Your task to perform on an android device: Open Maps and search for coffee Image 0: 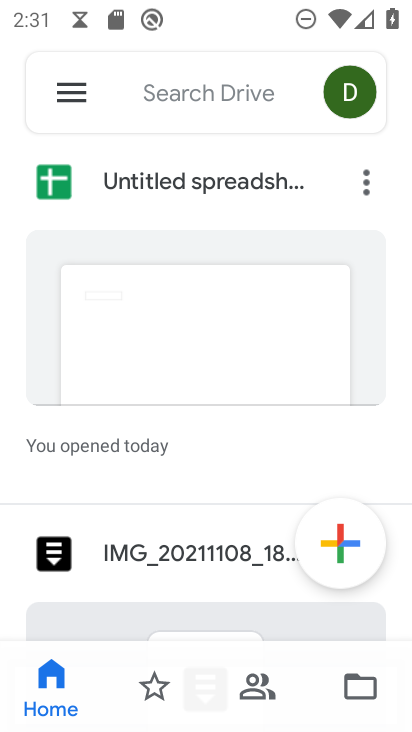
Step 0: press home button
Your task to perform on an android device: Open Maps and search for coffee Image 1: 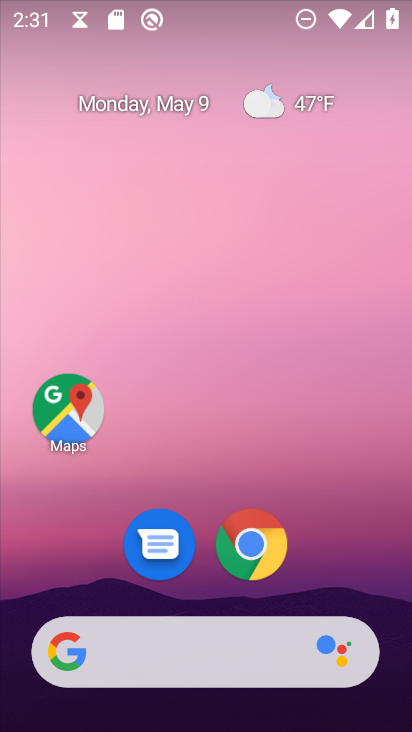
Step 1: drag from (366, 518) to (409, 258)
Your task to perform on an android device: Open Maps and search for coffee Image 2: 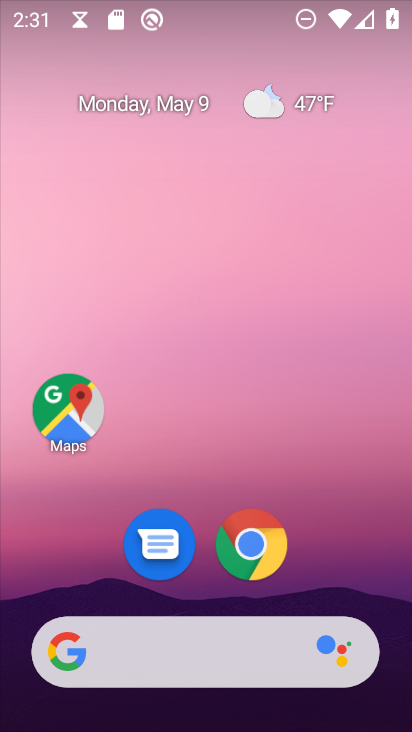
Step 2: click (268, 536)
Your task to perform on an android device: Open Maps and search for coffee Image 3: 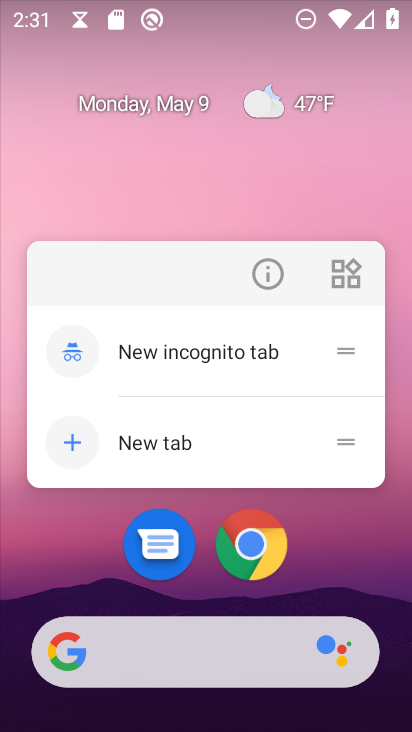
Step 3: click (348, 526)
Your task to perform on an android device: Open Maps and search for coffee Image 4: 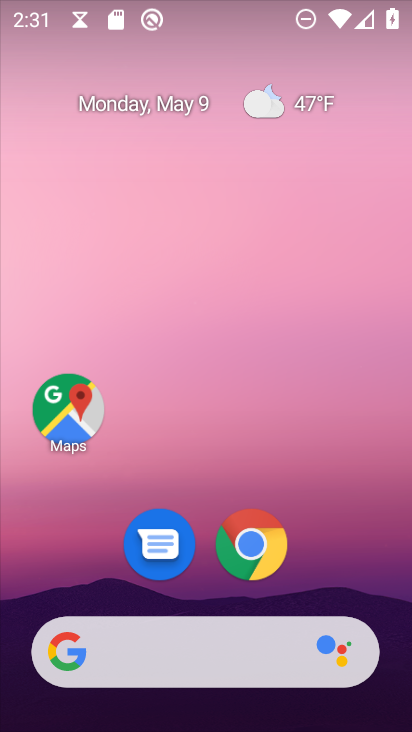
Step 4: drag from (374, 407) to (369, 104)
Your task to perform on an android device: Open Maps and search for coffee Image 5: 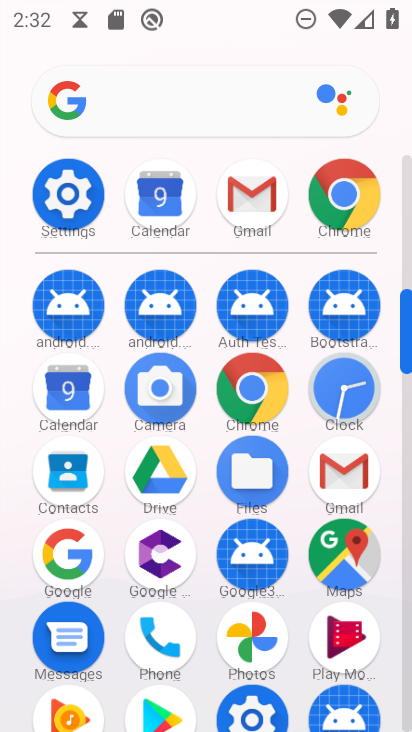
Step 5: click (347, 569)
Your task to perform on an android device: Open Maps and search for coffee Image 6: 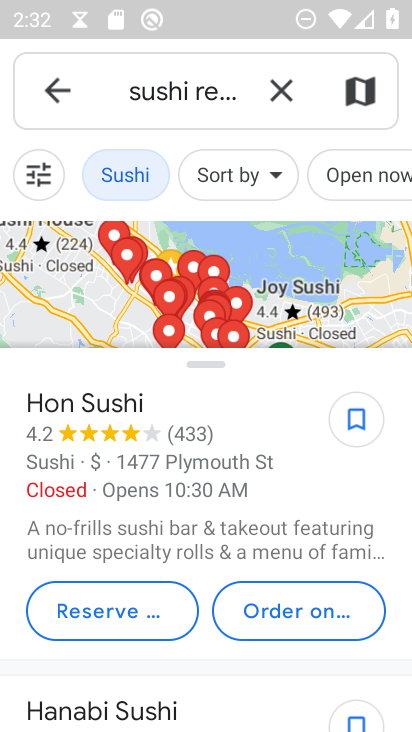
Step 6: click (268, 91)
Your task to perform on an android device: Open Maps and search for coffee Image 7: 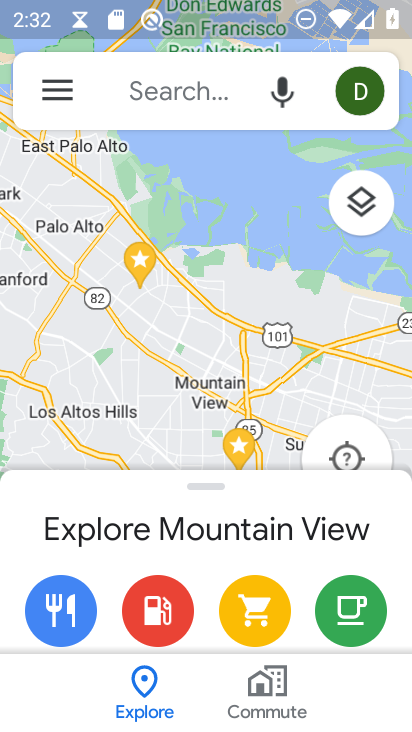
Step 7: click (219, 85)
Your task to perform on an android device: Open Maps and search for coffee Image 8: 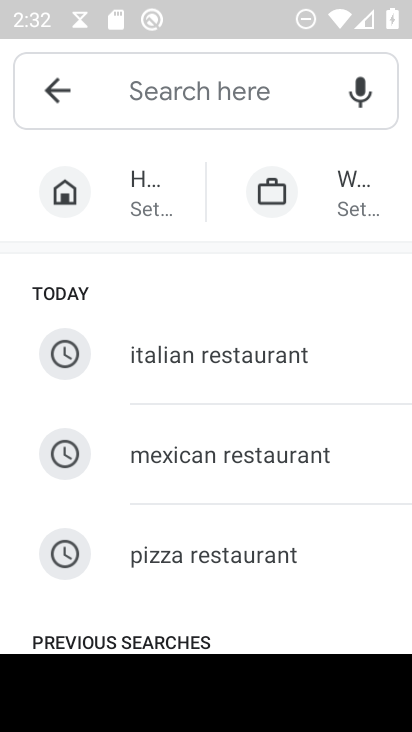
Step 8: drag from (270, 582) to (296, 302)
Your task to perform on an android device: Open Maps and search for coffee Image 9: 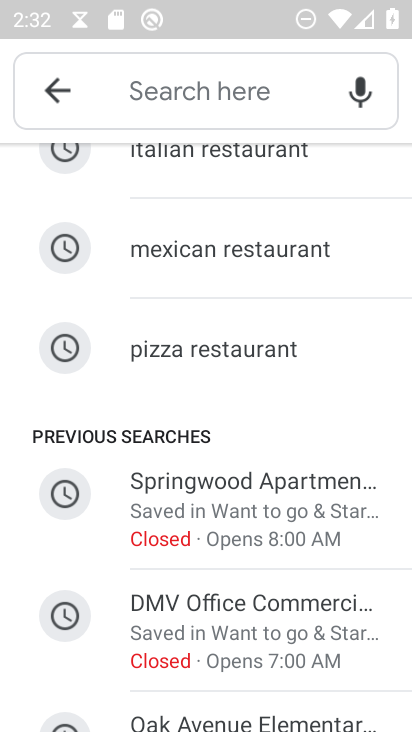
Step 9: drag from (245, 605) to (267, 253)
Your task to perform on an android device: Open Maps and search for coffee Image 10: 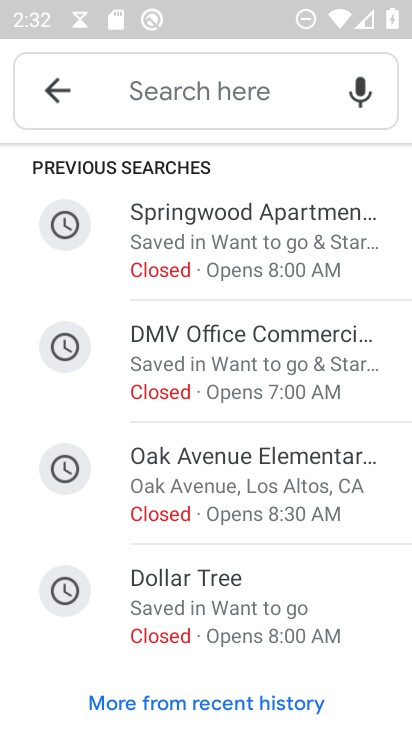
Step 10: drag from (267, 277) to (264, 582)
Your task to perform on an android device: Open Maps and search for coffee Image 11: 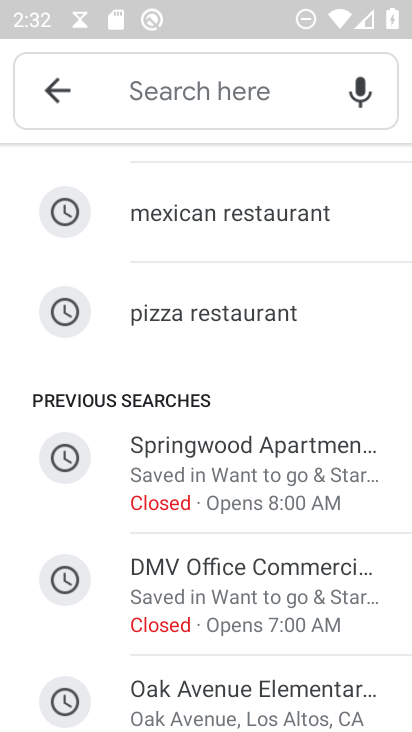
Step 11: drag from (325, 260) to (329, 589)
Your task to perform on an android device: Open Maps and search for coffee Image 12: 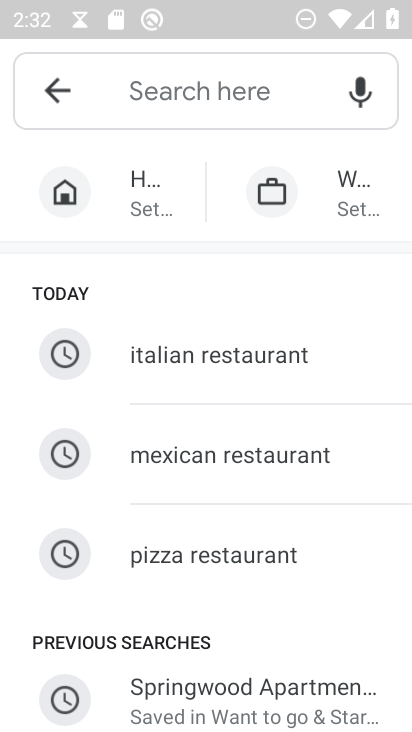
Step 12: click (180, 95)
Your task to perform on an android device: Open Maps and search for coffee Image 13: 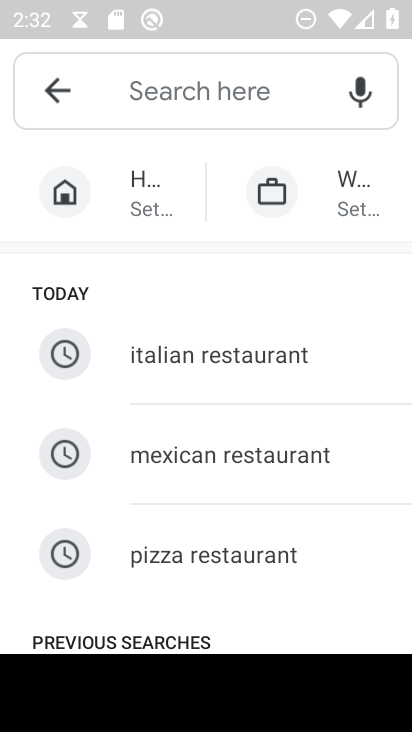
Step 13: type "coffee"
Your task to perform on an android device: Open Maps and search for coffee Image 14: 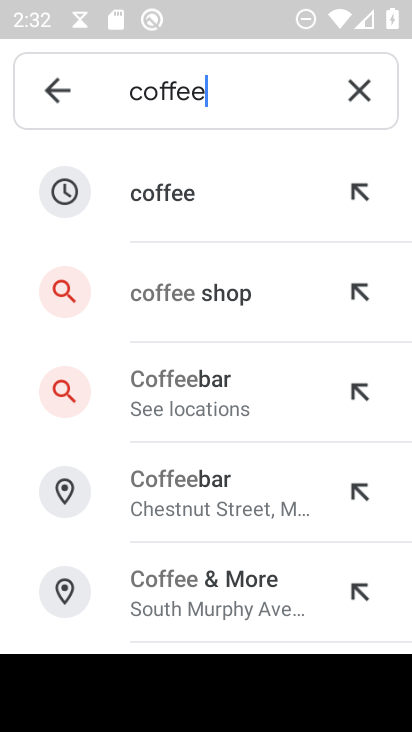
Step 14: click (108, 186)
Your task to perform on an android device: Open Maps and search for coffee Image 15: 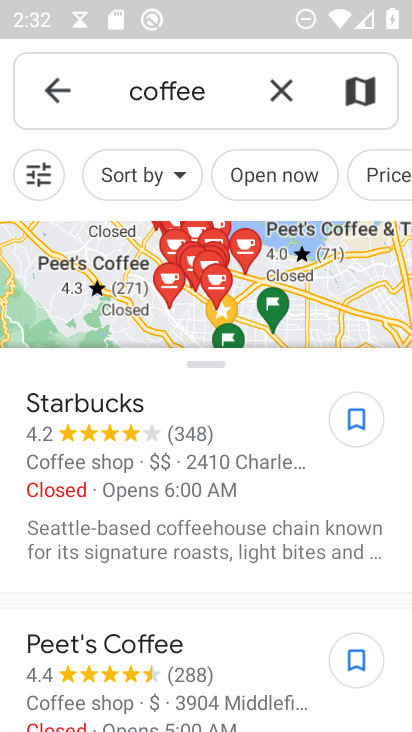
Step 15: task complete